Your task to perform on an android device: Open settings Image 0: 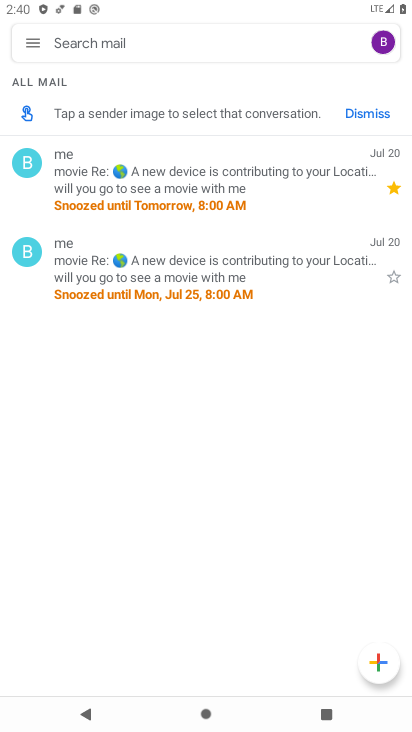
Step 0: press home button
Your task to perform on an android device: Open settings Image 1: 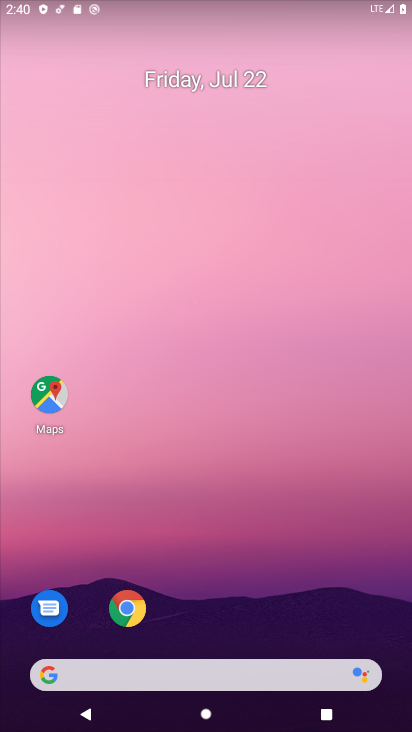
Step 1: drag from (244, 541) to (139, 50)
Your task to perform on an android device: Open settings Image 2: 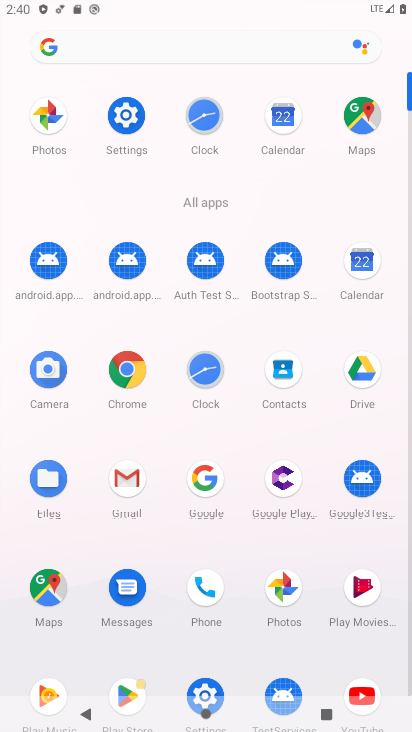
Step 2: click (206, 686)
Your task to perform on an android device: Open settings Image 3: 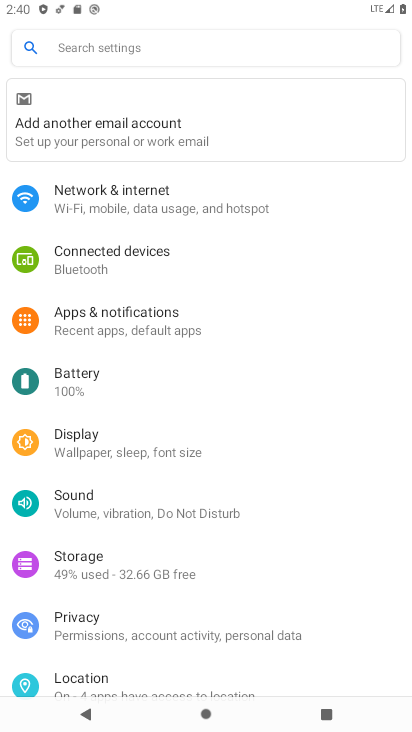
Step 3: task complete